Your task to perform on an android device: turn on priority inbox in the gmail app Image 0: 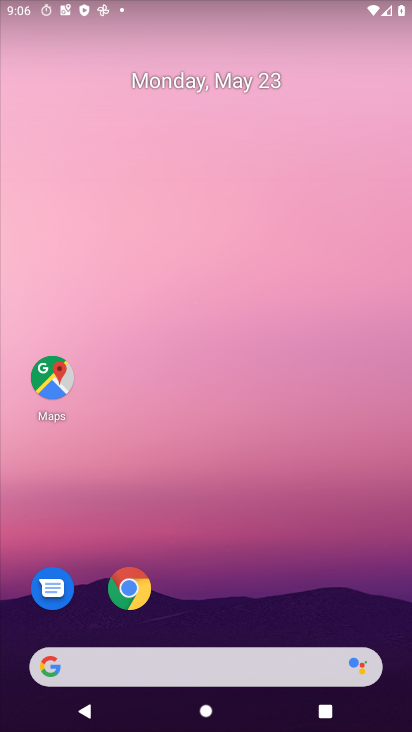
Step 0: drag from (385, 613) to (310, 146)
Your task to perform on an android device: turn on priority inbox in the gmail app Image 1: 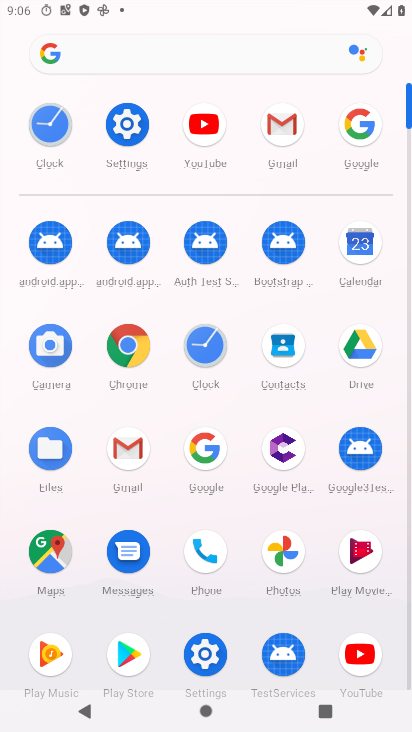
Step 1: click (118, 439)
Your task to perform on an android device: turn on priority inbox in the gmail app Image 2: 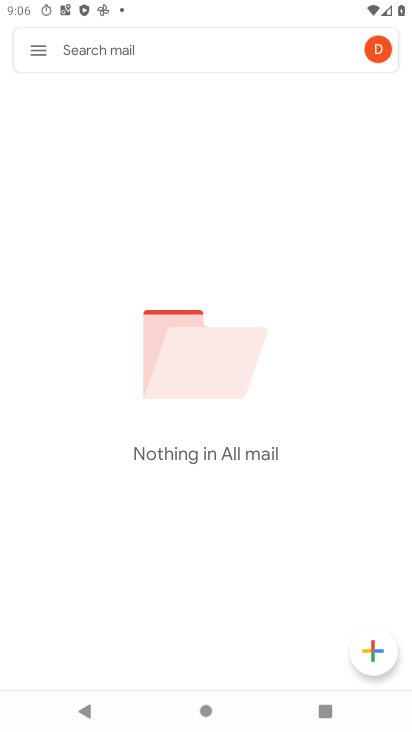
Step 2: click (35, 44)
Your task to perform on an android device: turn on priority inbox in the gmail app Image 3: 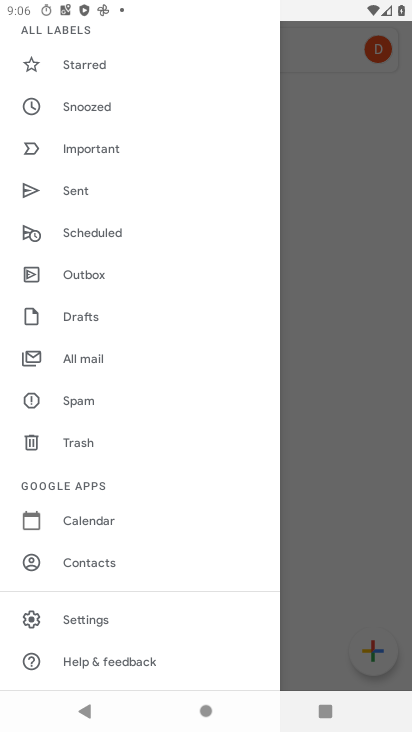
Step 3: click (73, 622)
Your task to perform on an android device: turn on priority inbox in the gmail app Image 4: 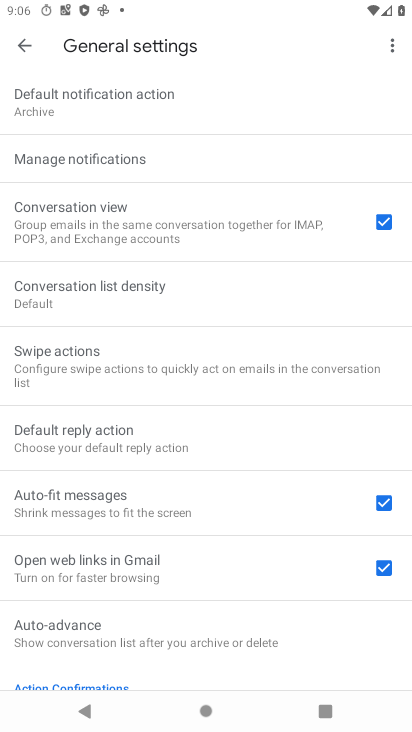
Step 4: click (22, 34)
Your task to perform on an android device: turn on priority inbox in the gmail app Image 5: 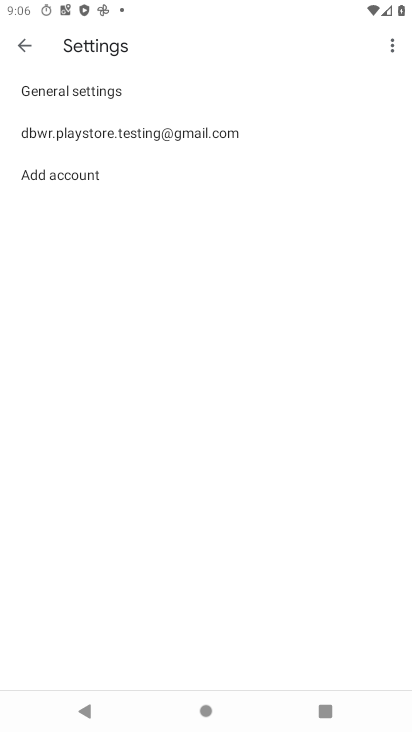
Step 5: click (69, 135)
Your task to perform on an android device: turn on priority inbox in the gmail app Image 6: 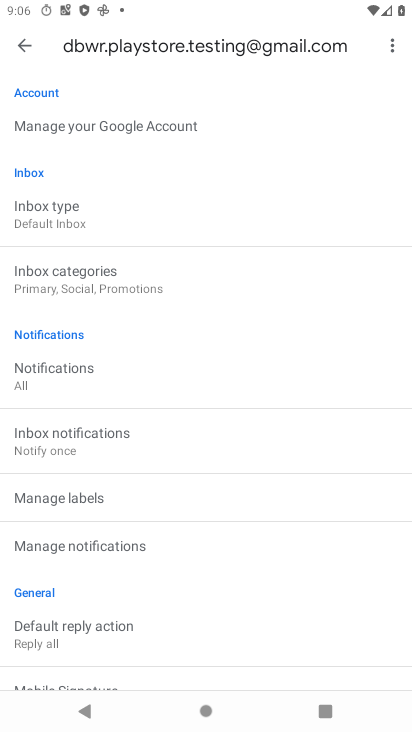
Step 6: click (45, 205)
Your task to perform on an android device: turn on priority inbox in the gmail app Image 7: 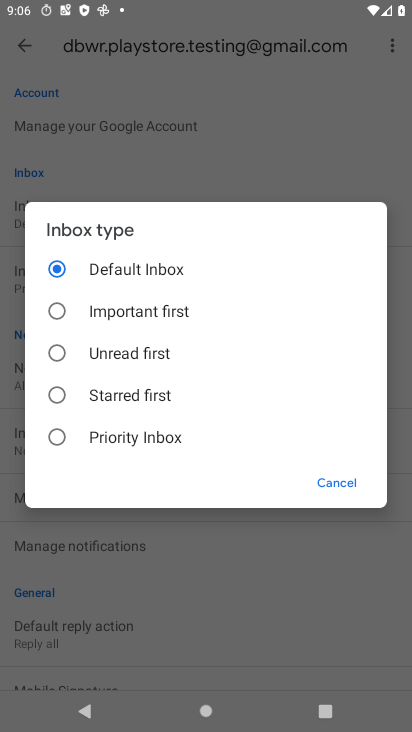
Step 7: click (57, 435)
Your task to perform on an android device: turn on priority inbox in the gmail app Image 8: 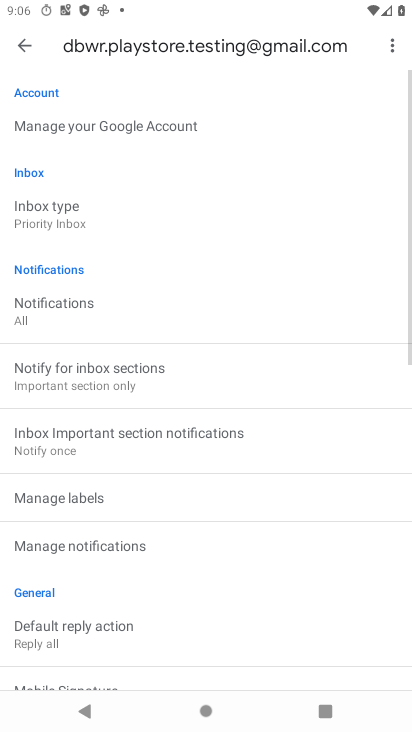
Step 8: task complete